Your task to perform on an android device: Go to display settings Image 0: 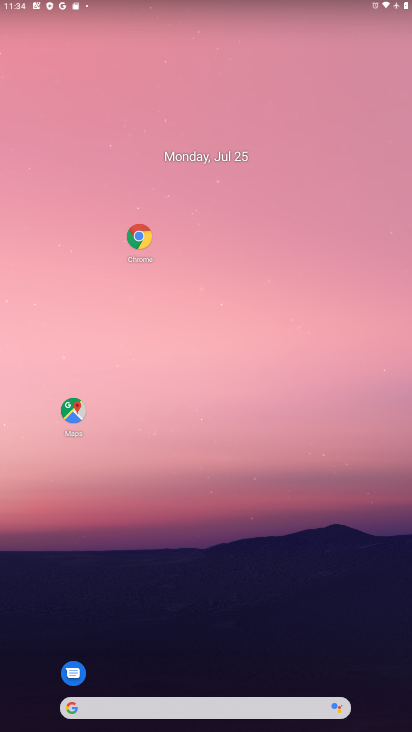
Step 0: drag from (305, 690) to (291, 189)
Your task to perform on an android device: Go to display settings Image 1: 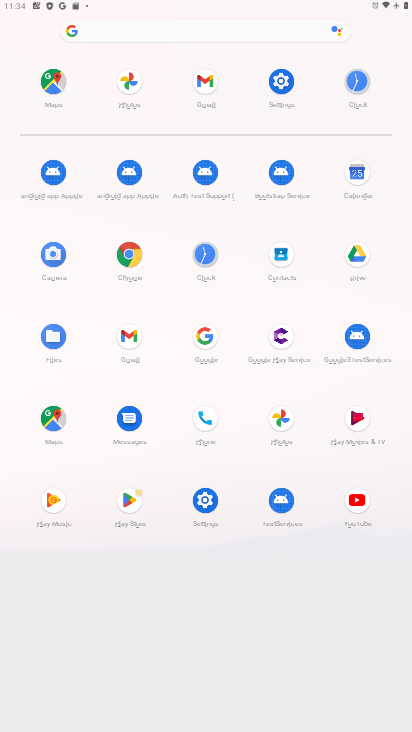
Step 1: click (278, 115)
Your task to perform on an android device: Go to display settings Image 2: 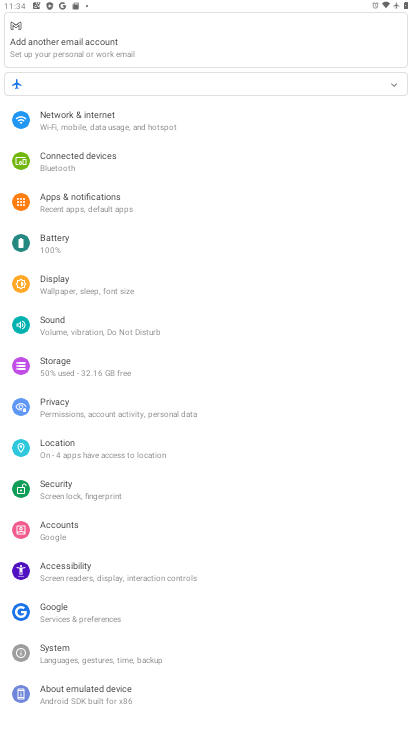
Step 2: click (101, 289)
Your task to perform on an android device: Go to display settings Image 3: 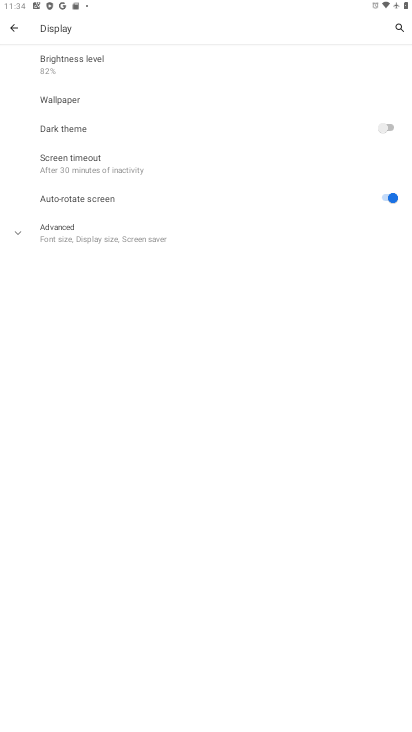
Step 3: task complete